Your task to perform on an android device: Open Google Image 0: 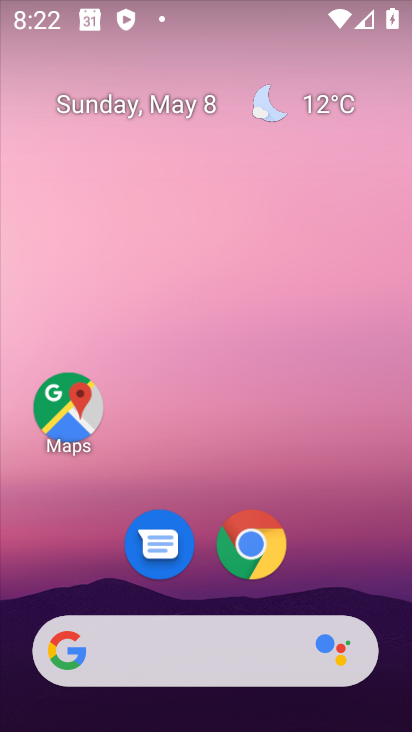
Step 0: click (248, 546)
Your task to perform on an android device: Open Google Image 1: 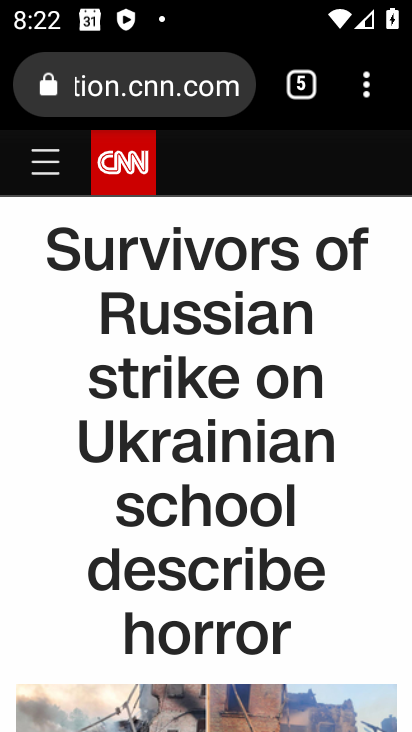
Step 1: press home button
Your task to perform on an android device: Open Google Image 2: 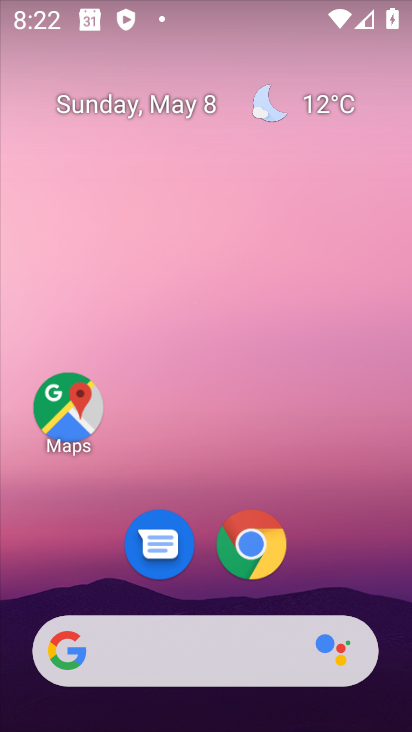
Step 2: click (68, 650)
Your task to perform on an android device: Open Google Image 3: 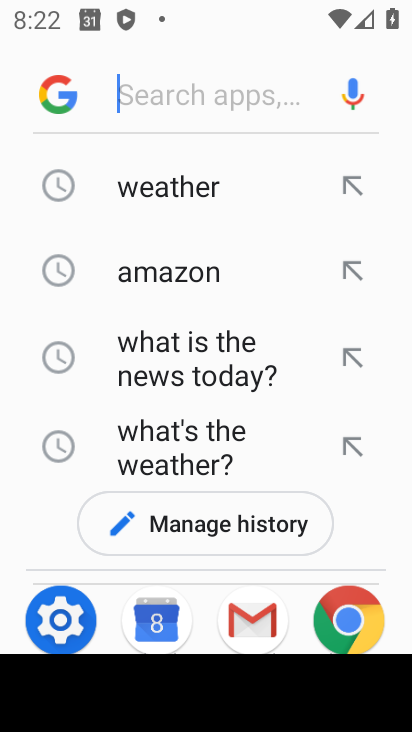
Step 3: task complete